Your task to perform on an android device: turn on translation in the chrome app Image 0: 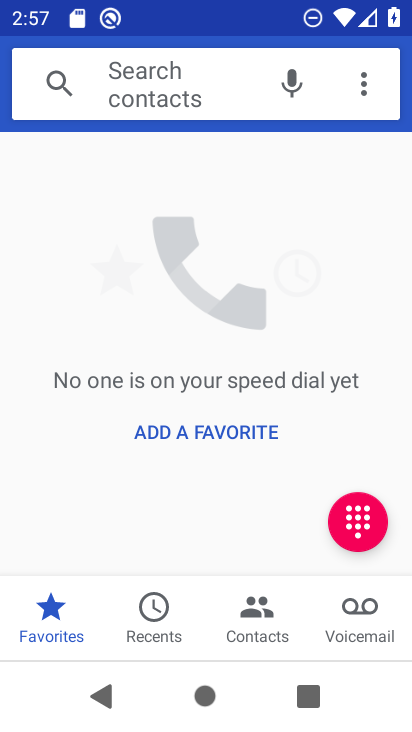
Step 0: press back button
Your task to perform on an android device: turn on translation in the chrome app Image 1: 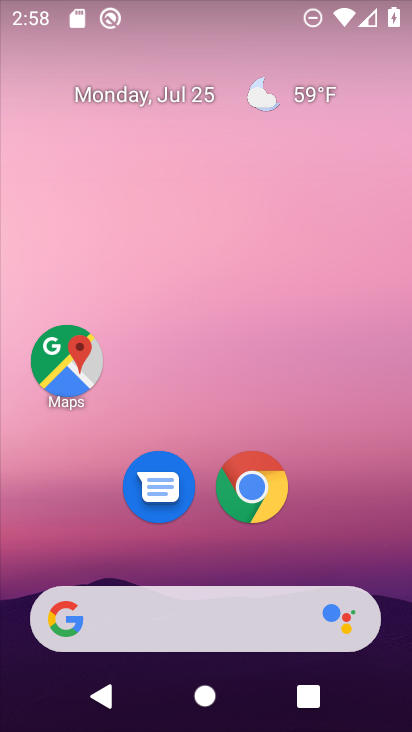
Step 1: click (242, 494)
Your task to perform on an android device: turn on translation in the chrome app Image 2: 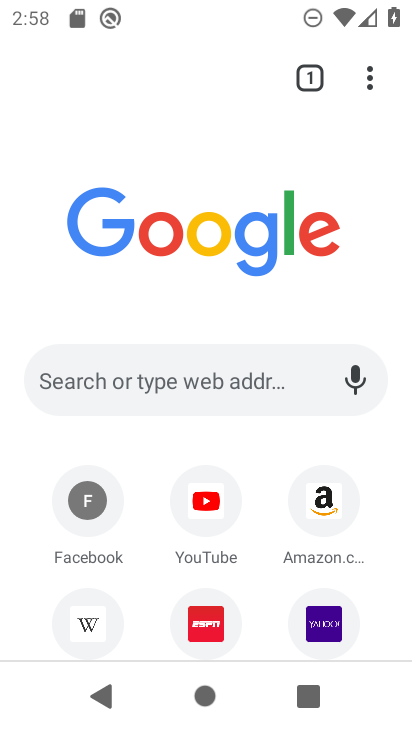
Step 2: drag from (360, 70) to (98, 548)
Your task to perform on an android device: turn on translation in the chrome app Image 3: 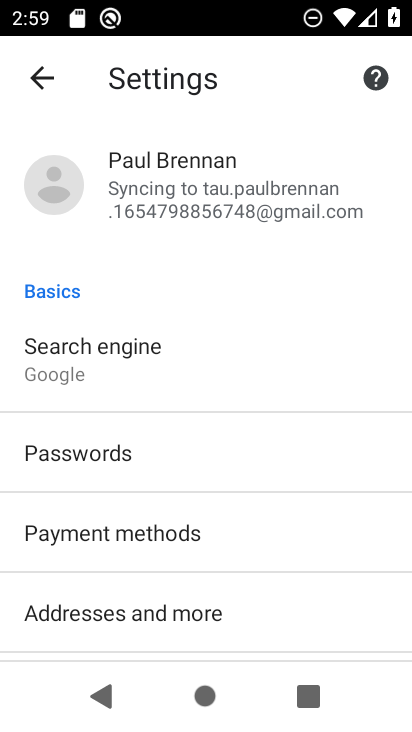
Step 3: drag from (166, 590) to (246, 103)
Your task to perform on an android device: turn on translation in the chrome app Image 4: 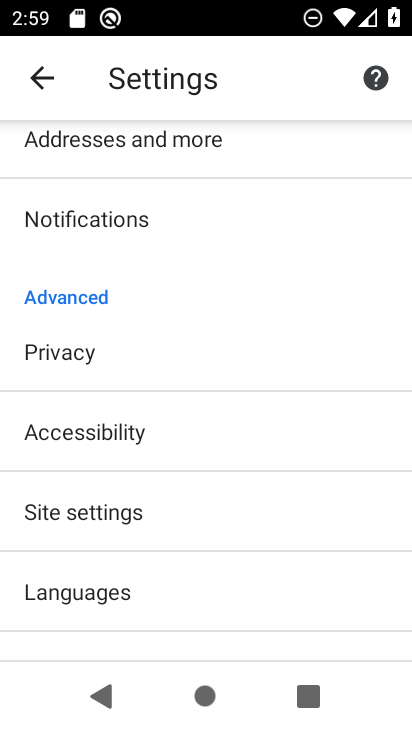
Step 4: click (107, 593)
Your task to perform on an android device: turn on translation in the chrome app Image 5: 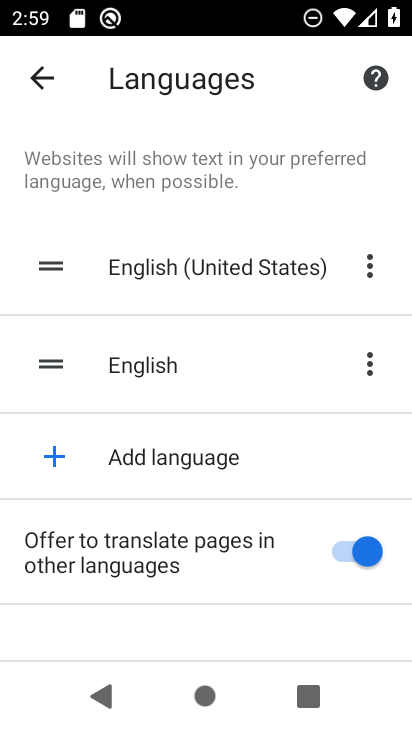
Step 5: task complete